Your task to perform on an android device: check the backup settings in the google photos Image 0: 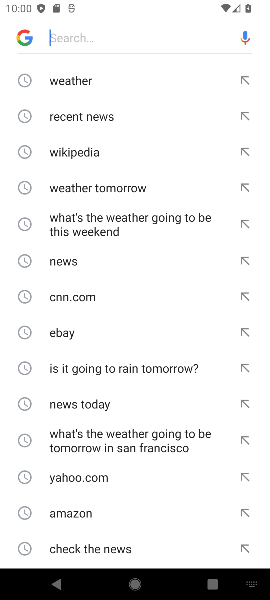
Step 0: press home button
Your task to perform on an android device: check the backup settings in the google photos Image 1: 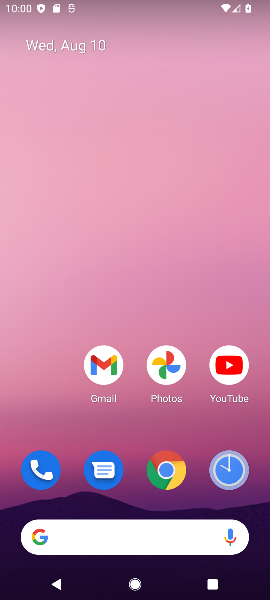
Step 1: click (169, 359)
Your task to perform on an android device: check the backup settings in the google photos Image 2: 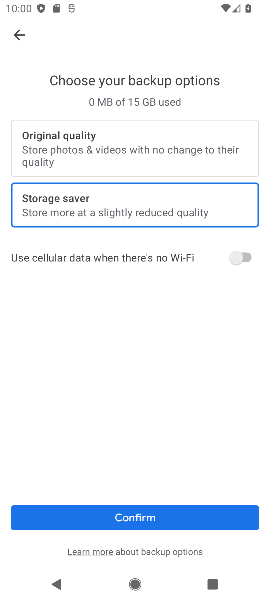
Step 2: task complete